Your task to perform on an android device: turn off wifi Image 0: 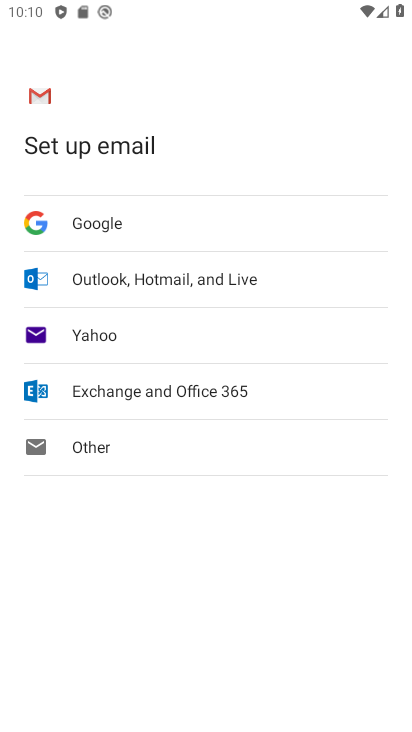
Step 0: press home button
Your task to perform on an android device: turn off wifi Image 1: 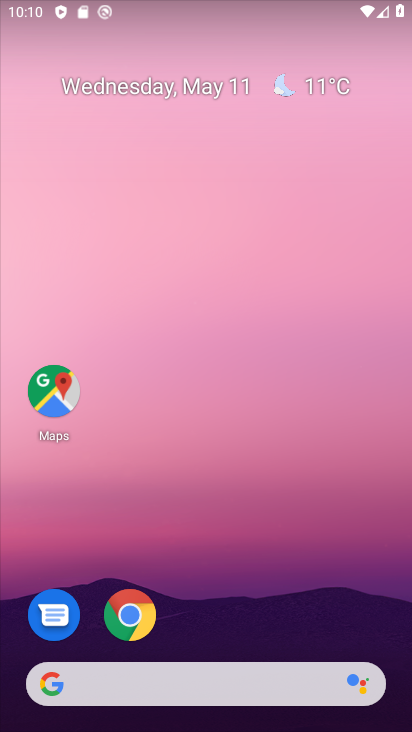
Step 1: drag from (137, 2) to (170, 446)
Your task to perform on an android device: turn off wifi Image 2: 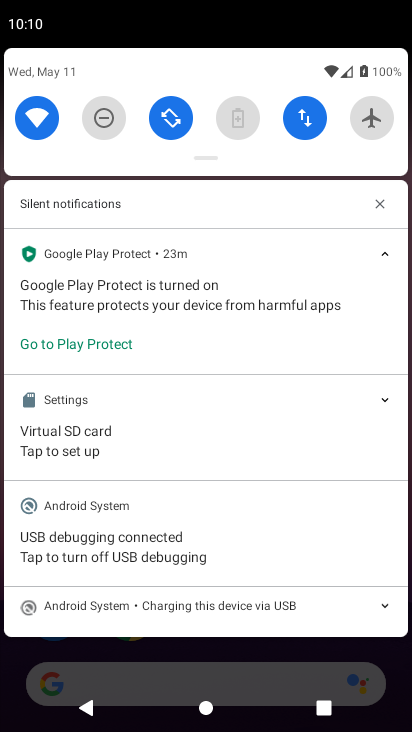
Step 2: click (33, 113)
Your task to perform on an android device: turn off wifi Image 3: 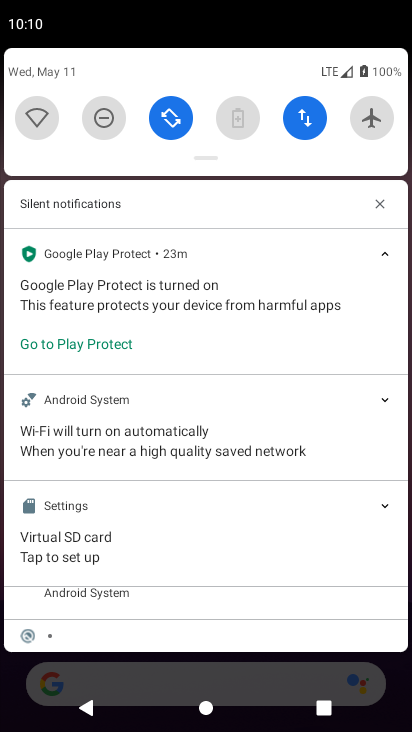
Step 3: task complete